Your task to perform on an android device: Go to sound settings Image 0: 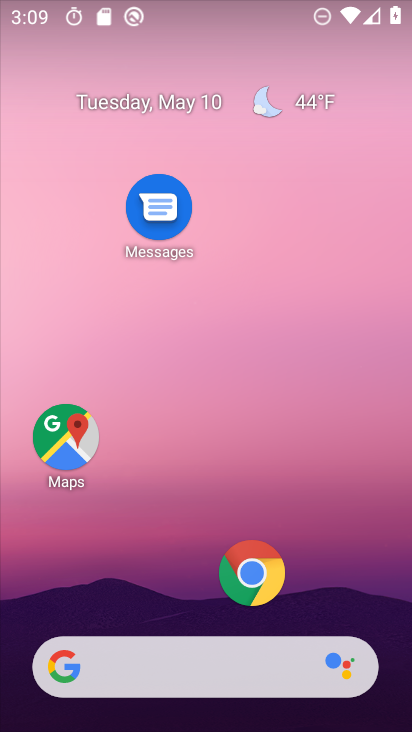
Step 0: drag from (175, 608) to (222, 269)
Your task to perform on an android device: Go to sound settings Image 1: 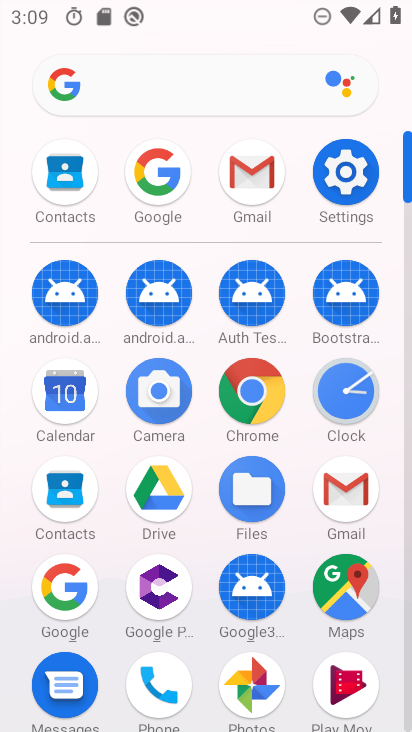
Step 1: click (364, 156)
Your task to perform on an android device: Go to sound settings Image 2: 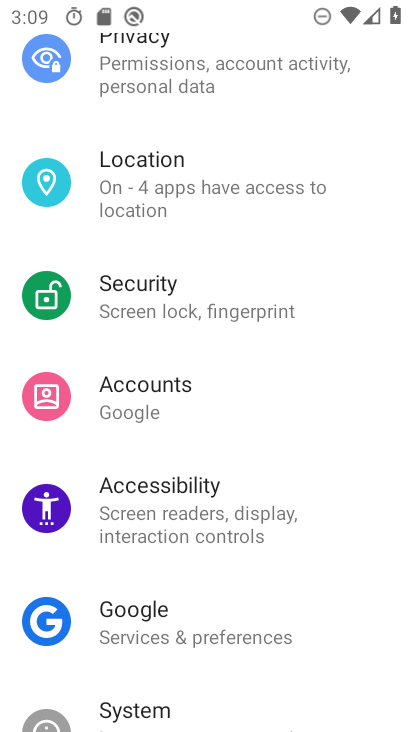
Step 2: drag from (220, 196) to (251, 470)
Your task to perform on an android device: Go to sound settings Image 3: 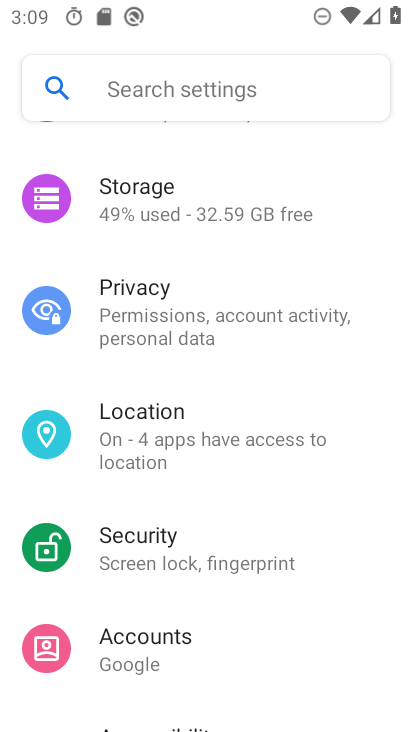
Step 3: drag from (197, 238) to (223, 422)
Your task to perform on an android device: Go to sound settings Image 4: 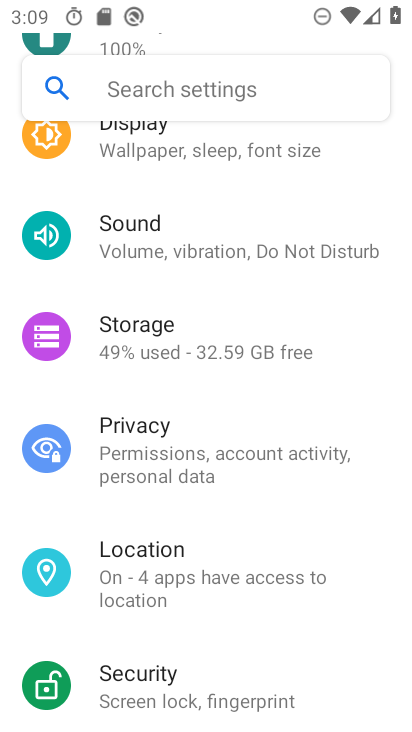
Step 4: click (193, 230)
Your task to perform on an android device: Go to sound settings Image 5: 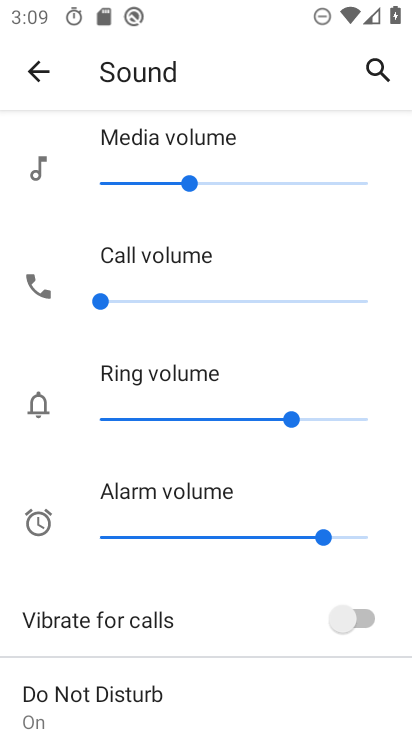
Step 5: task complete